Your task to perform on an android device: turn off location Image 0: 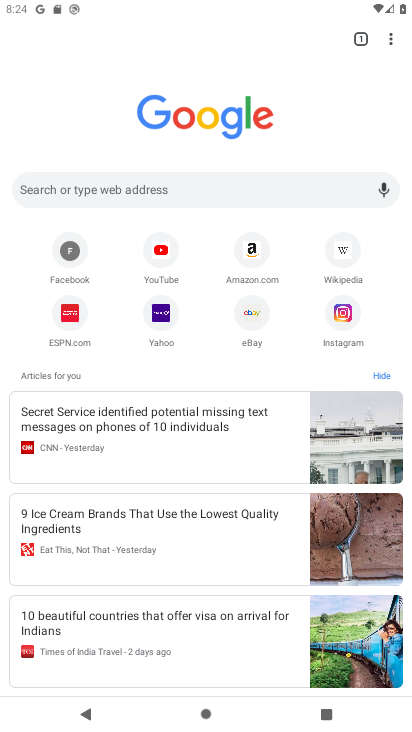
Step 0: press home button
Your task to perform on an android device: turn off location Image 1: 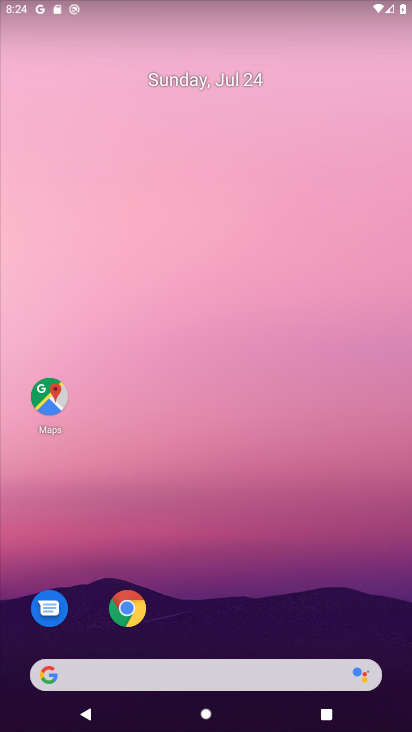
Step 1: drag from (260, 595) to (388, 40)
Your task to perform on an android device: turn off location Image 2: 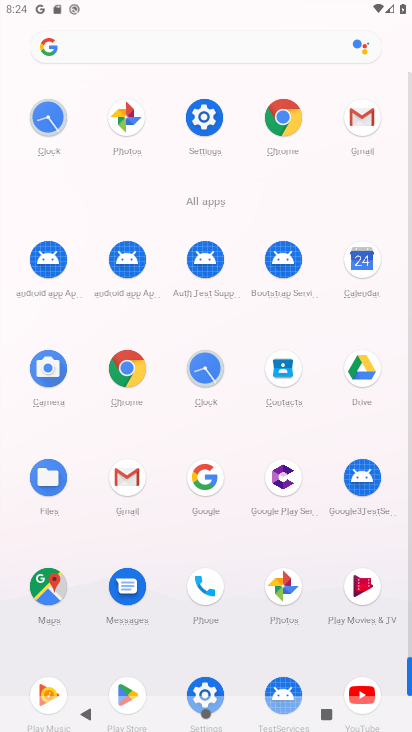
Step 2: click (223, 103)
Your task to perform on an android device: turn off location Image 3: 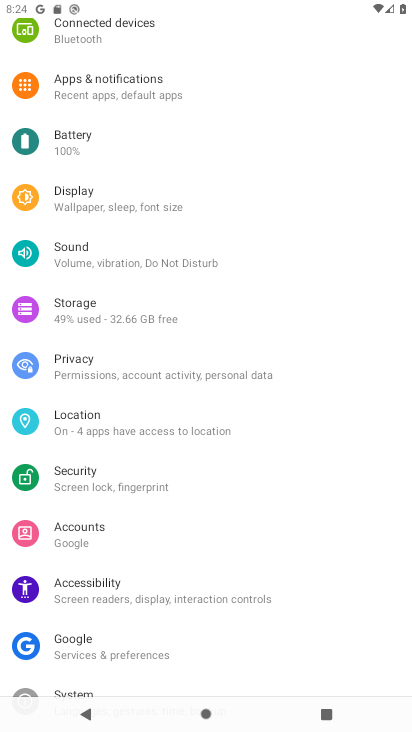
Step 3: click (156, 418)
Your task to perform on an android device: turn off location Image 4: 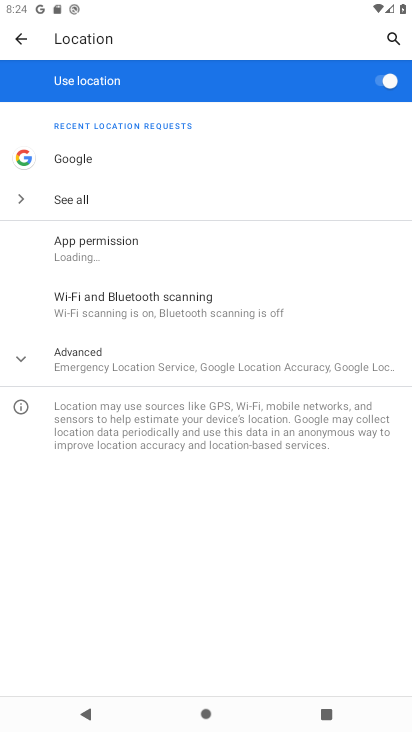
Step 4: click (396, 89)
Your task to perform on an android device: turn off location Image 5: 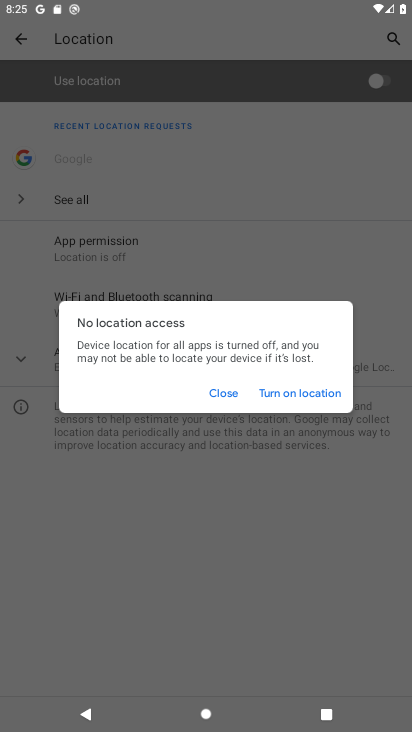
Step 5: task complete